Your task to perform on an android device: View the shopping cart on ebay.com. Add asus zenbook to the cart on ebay.com, then select checkout. Image 0: 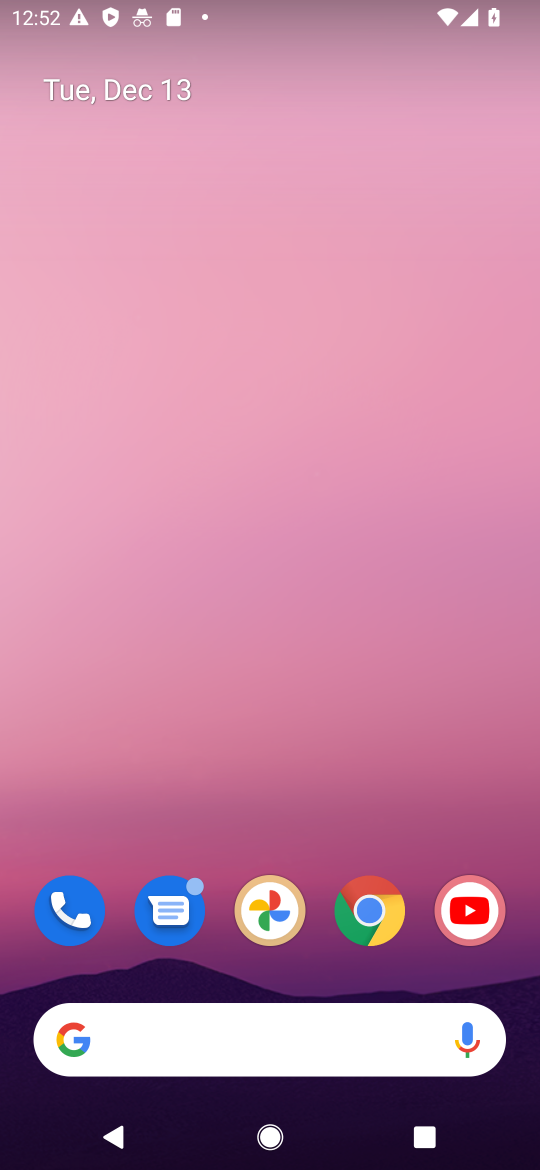
Step 0: click (379, 905)
Your task to perform on an android device: View the shopping cart on ebay.com. Add asus zenbook to the cart on ebay.com, then select checkout. Image 1: 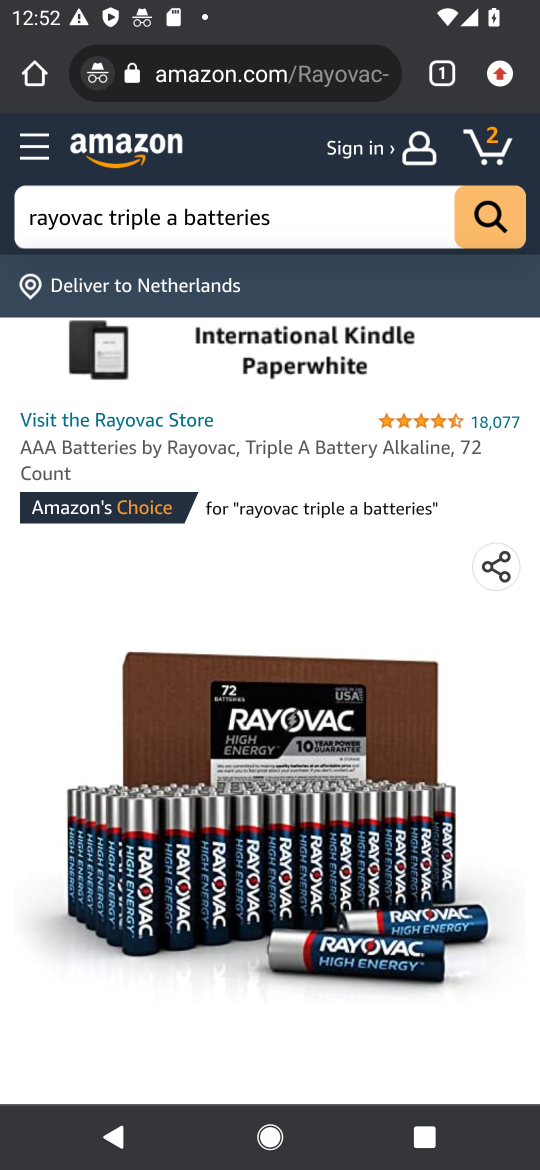
Step 1: click (298, 70)
Your task to perform on an android device: View the shopping cart on ebay.com. Add asus zenbook to the cart on ebay.com, then select checkout. Image 2: 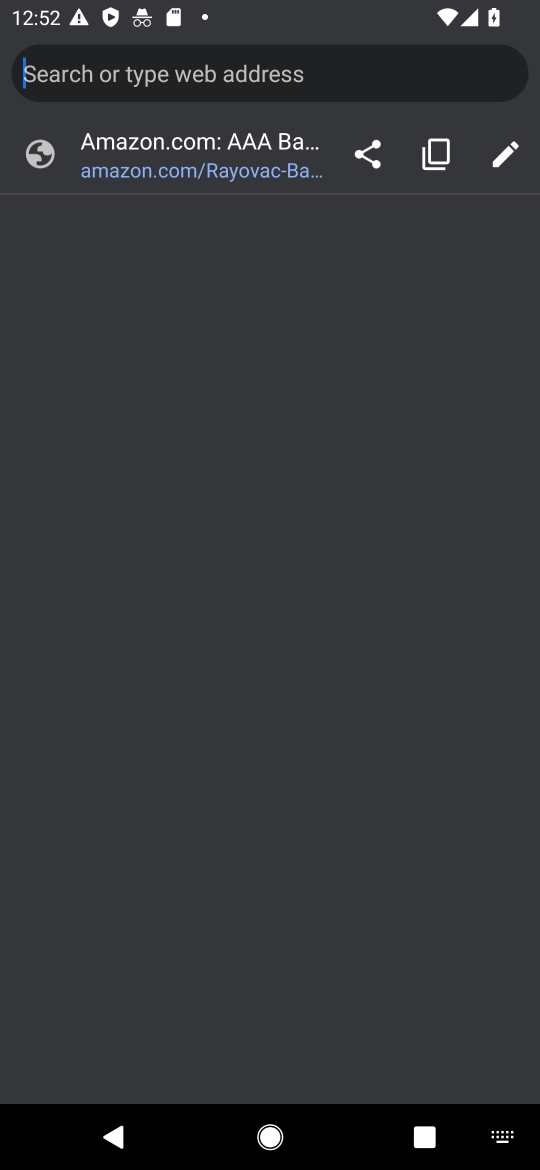
Step 2: type "EBAY"
Your task to perform on an android device: View the shopping cart on ebay.com. Add asus zenbook to the cart on ebay.com, then select checkout. Image 3: 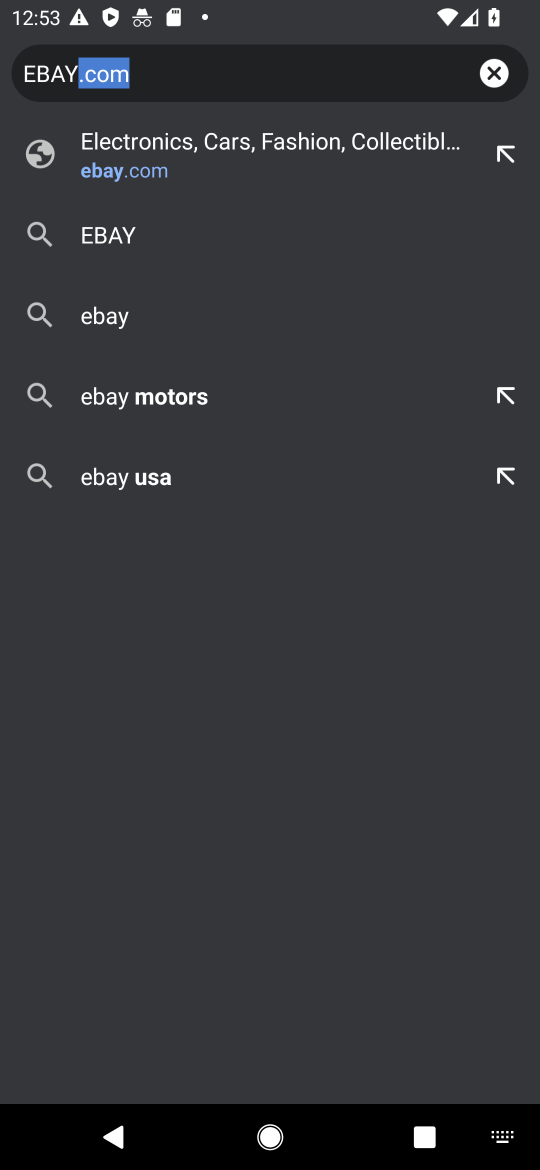
Step 3: click (240, 153)
Your task to perform on an android device: View the shopping cart on ebay.com. Add asus zenbook to the cart on ebay.com, then select checkout. Image 4: 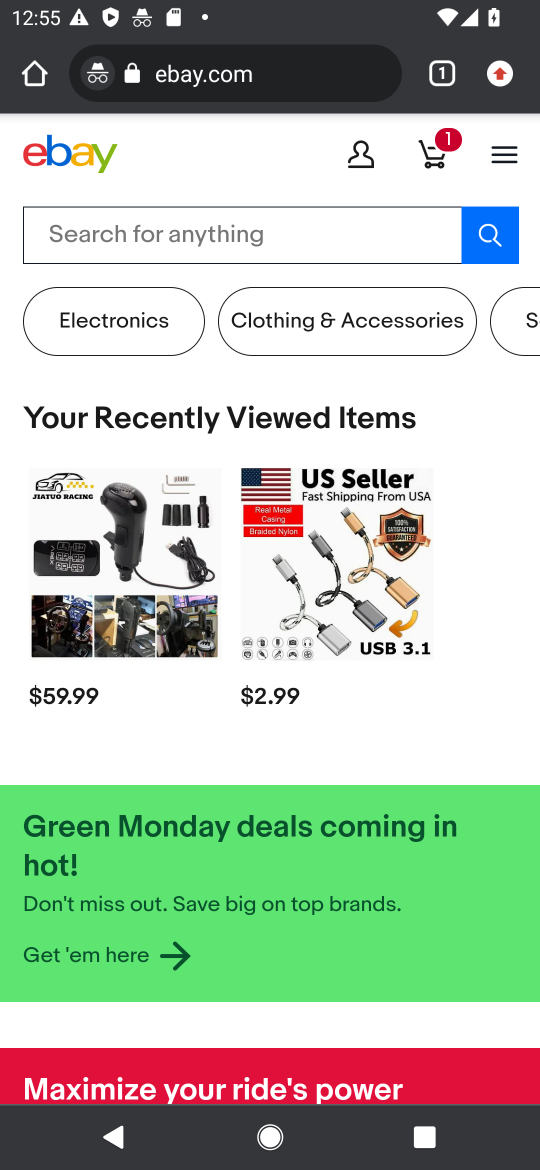
Step 4: click (258, 249)
Your task to perform on an android device: View the shopping cart on ebay.com. Add asus zenbook to the cart on ebay.com, then select checkout. Image 5: 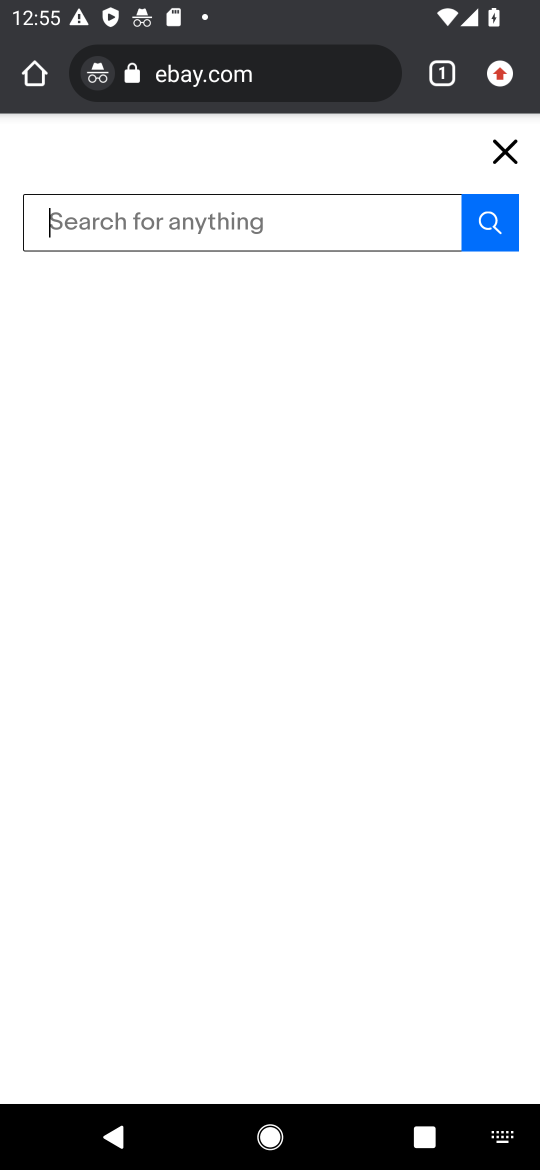
Step 5: type "asus zenbook"
Your task to perform on an android device: View the shopping cart on ebay.com. Add asus zenbook to the cart on ebay.com, then select checkout. Image 6: 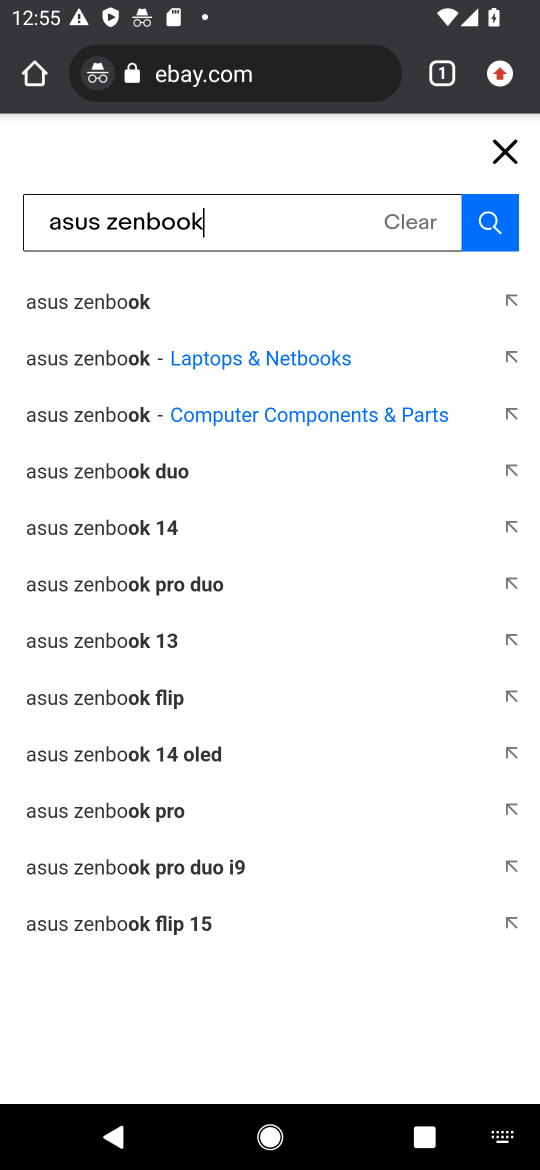
Step 6: click (89, 305)
Your task to perform on an android device: View the shopping cart on ebay.com. Add asus zenbook to the cart on ebay.com, then select checkout. Image 7: 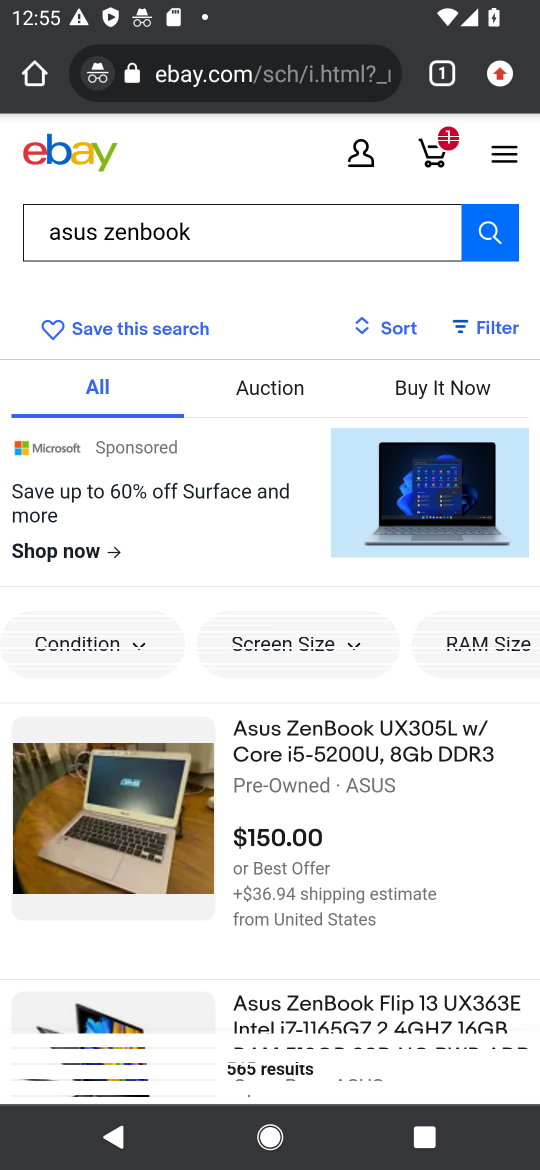
Step 7: click (374, 754)
Your task to perform on an android device: View the shopping cart on ebay.com. Add asus zenbook to the cart on ebay.com, then select checkout. Image 8: 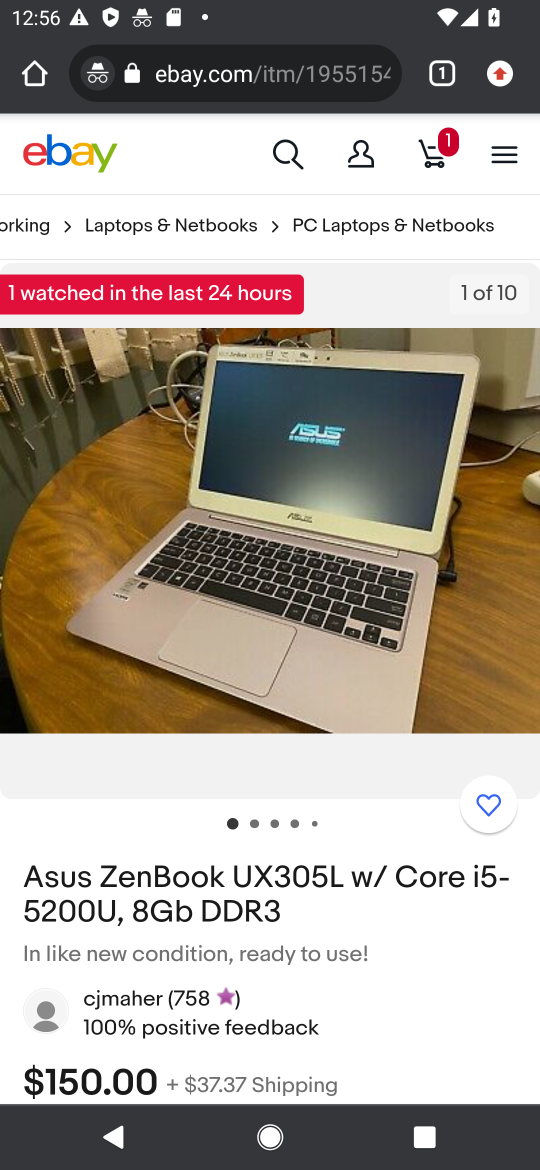
Step 8: drag from (385, 976) to (315, 174)
Your task to perform on an android device: View the shopping cart on ebay.com. Add asus zenbook to the cart on ebay.com, then select checkout. Image 9: 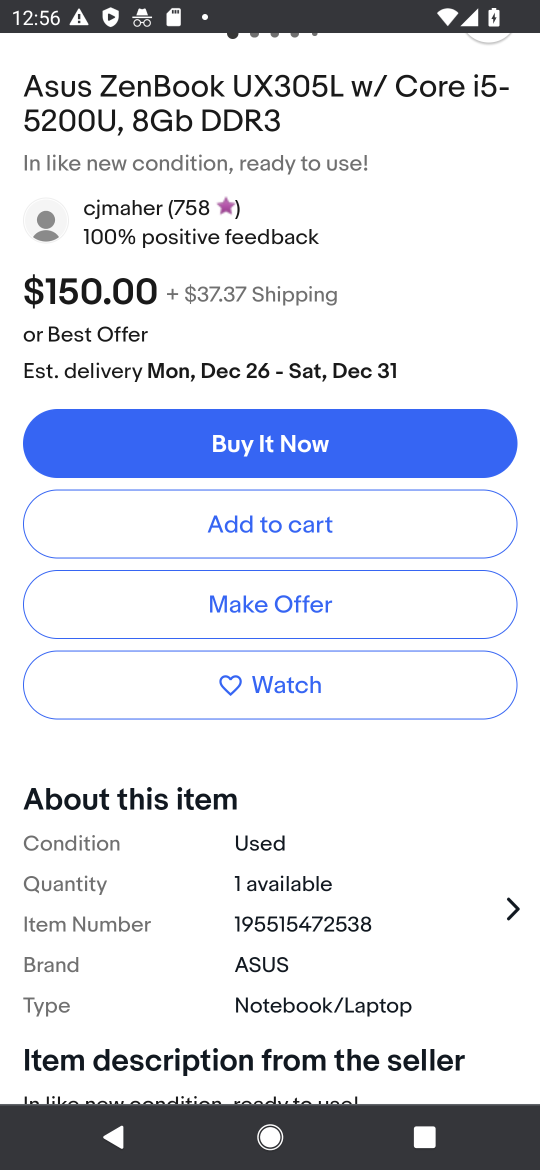
Step 9: click (291, 514)
Your task to perform on an android device: View the shopping cart on ebay.com. Add asus zenbook to the cart on ebay.com, then select checkout. Image 10: 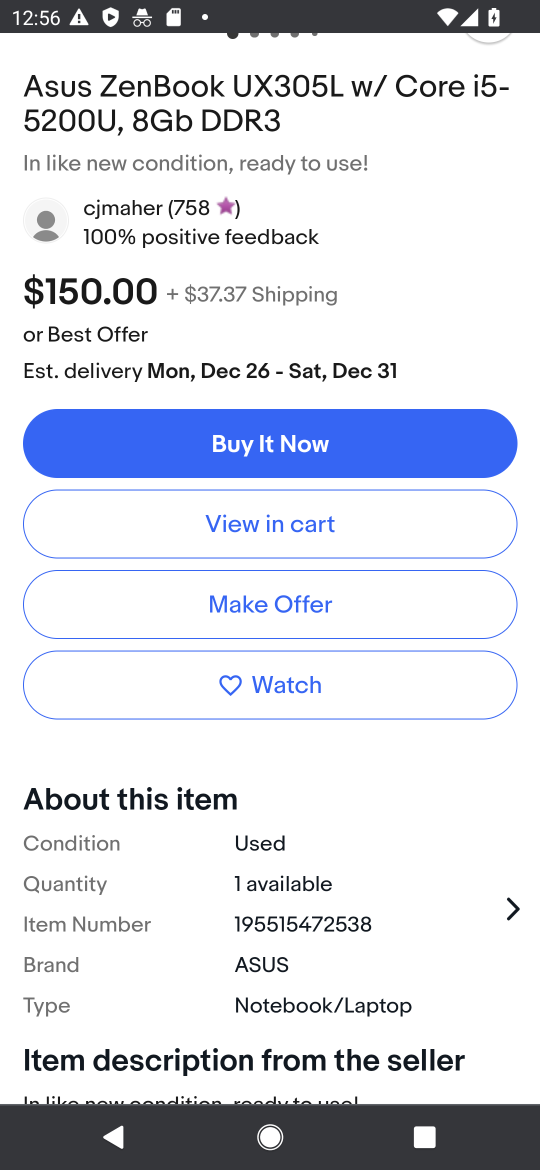
Step 10: click (301, 521)
Your task to perform on an android device: View the shopping cart on ebay.com. Add asus zenbook to the cart on ebay.com, then select checkout. Image 11: 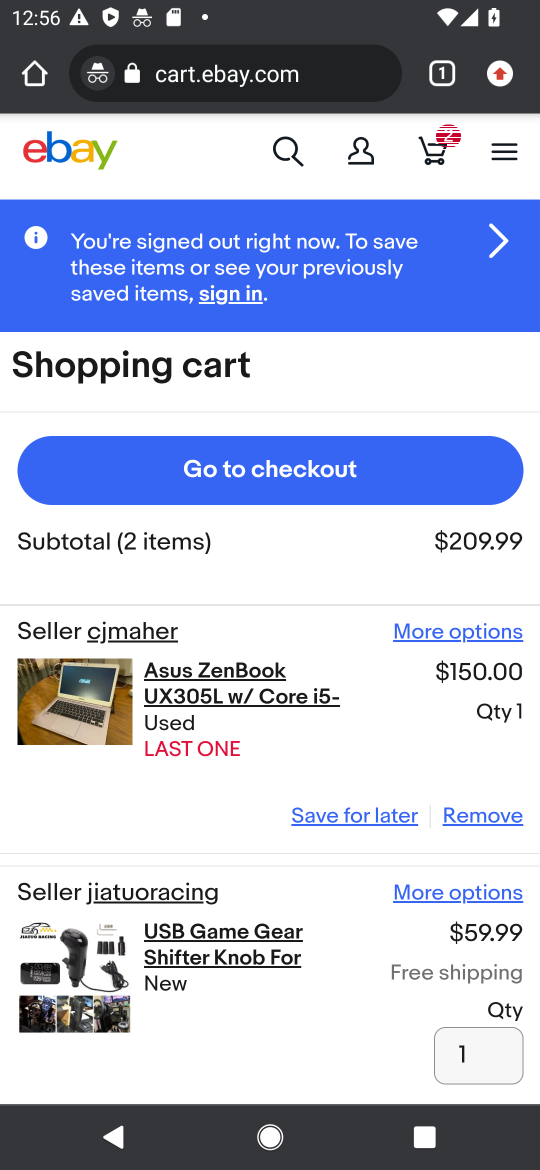
Step 11: click (244, 477)
Your task to perform on an android device: View the shopping cart on ebay.com. Add asus zenbook to the cart on ebay.com, then select checkout. Image 12: 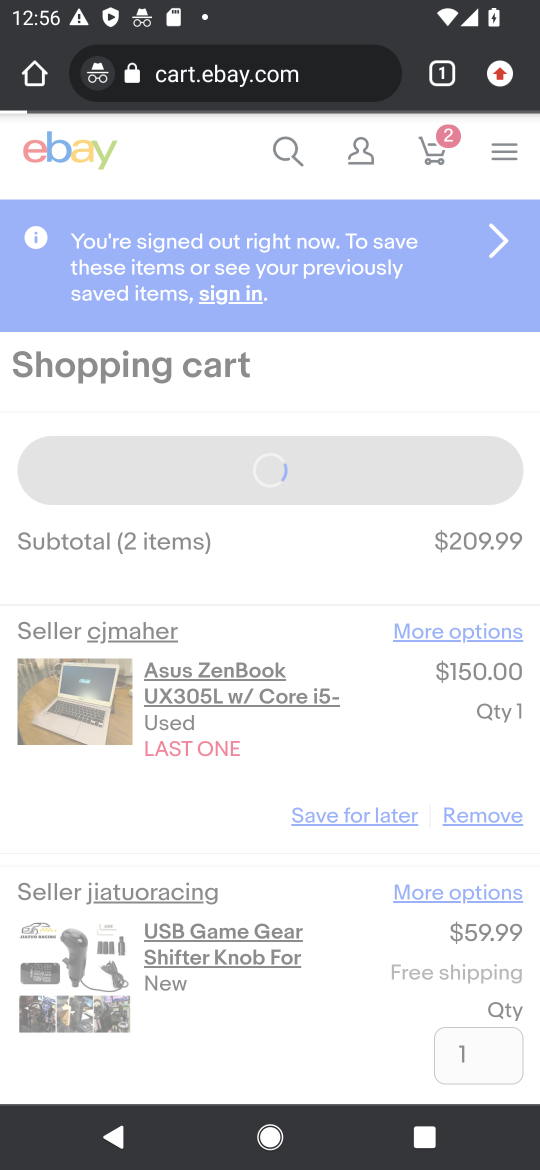
Step 12: task complete